Your task to perform on an android device: change keyboard looks Image 0: 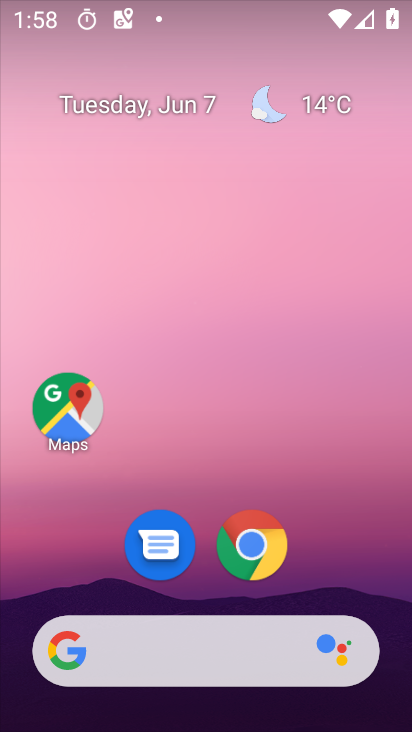
Step 0: drag from (337, 478) to (225, 6)
Your task to perform on an android device: change keyboard looks Image 1: 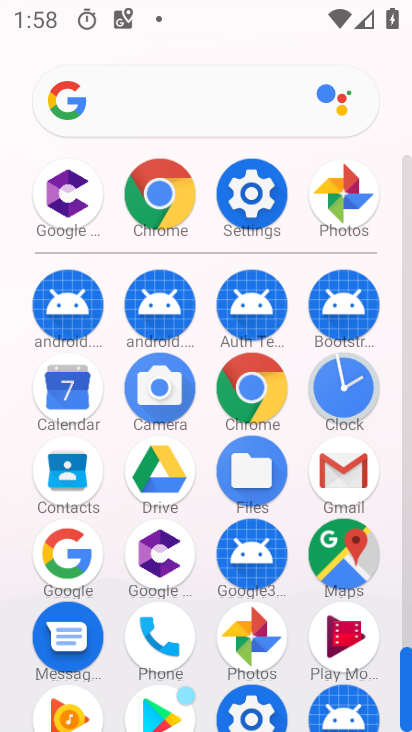
Step 1: click (249, 191)
Your task to perform on an android device: change keyboard looks Image 2: 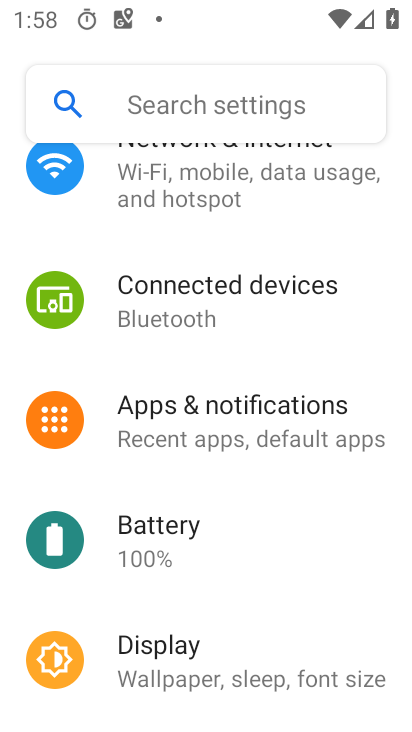
Step 2: drag from (269, 595) to (266, 64)
Your task to perform on an android device: change keyboard looks Image 3: 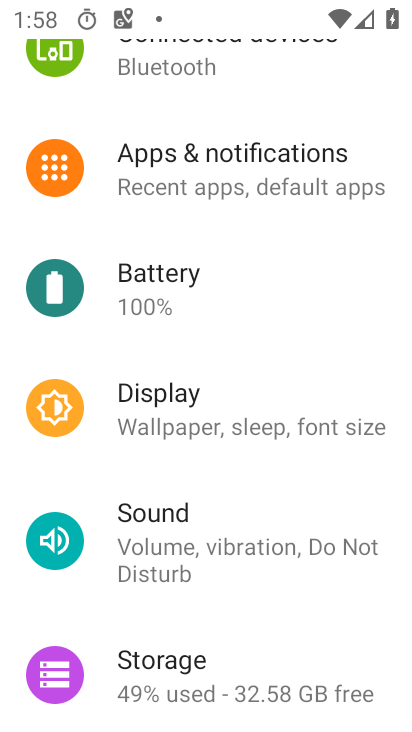
Step 3: drag from (245, 591) to (267, 125)
Your task to perform on an android device: change keyboard looks Image 4: 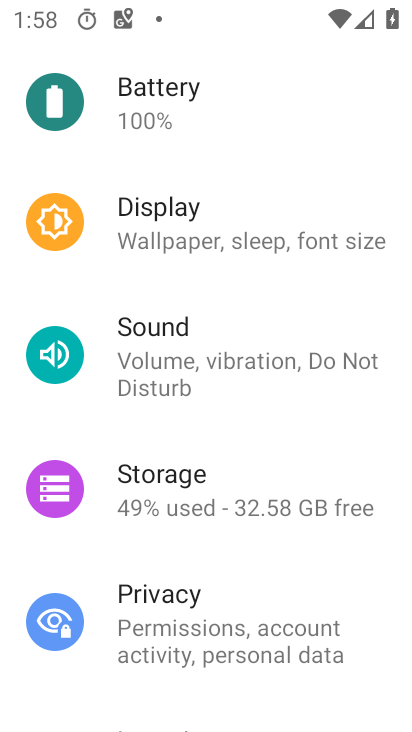
Step 4: drag from (238, 570) to (237, 135)
Your task to perform on an android device: change keyboard looks Image 5: 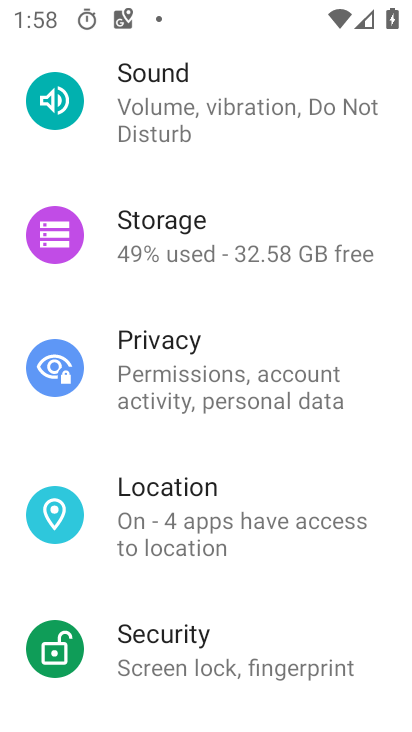
Step 5: drag from (215, 627) to (234, 202)
Your task to perform on an android device: change keyboard looks Image 6: 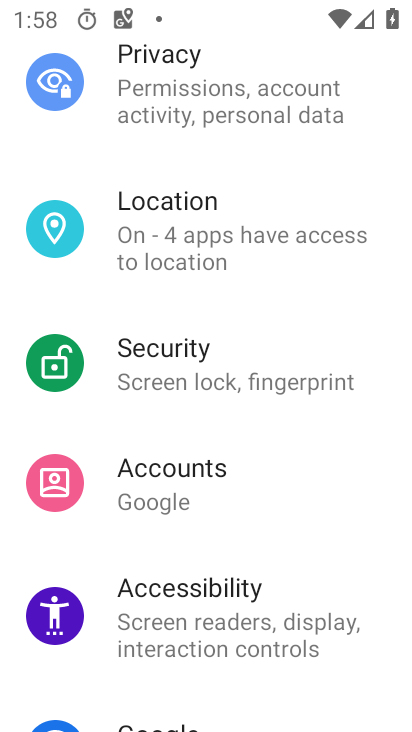
Step 6: drag from (257, 508) to (249, 191)
Your task to perform on an android device: change keyboard looks Image 7: 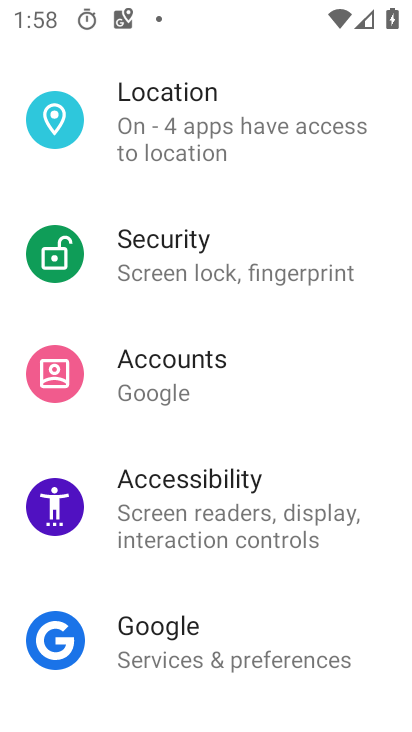
Step 7: drag from (231, 660) to (256, 127)
Your task to perform on an android device: change keyboard looks Image 8: 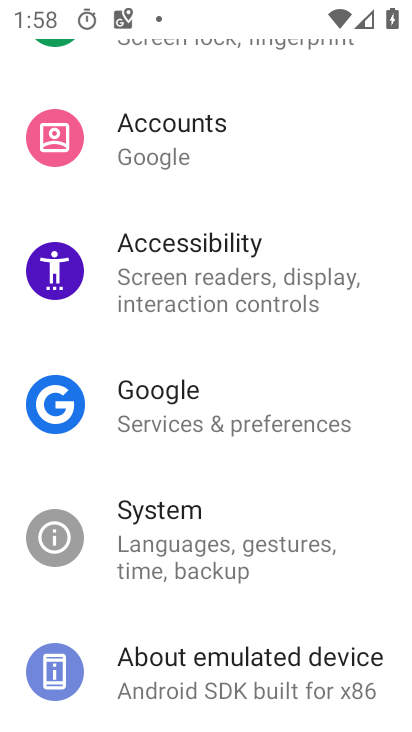
Step 8: click (219, 536)
Your task to perform on an android device: change keyboard looks Image 9: 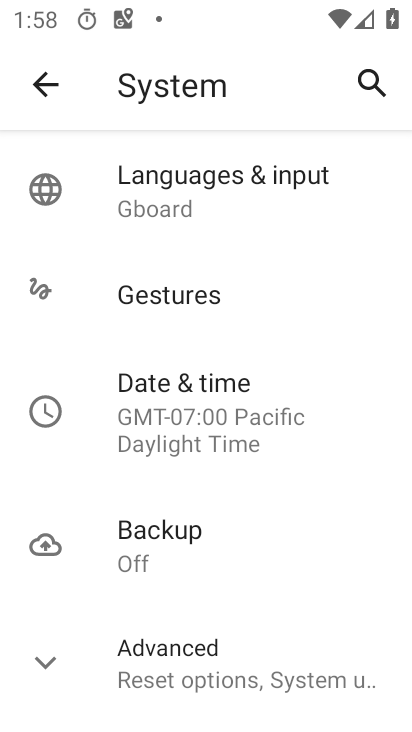
Step 9: click (232, 168)
Your task to perform on an android device: change keyboard looks Image 10: 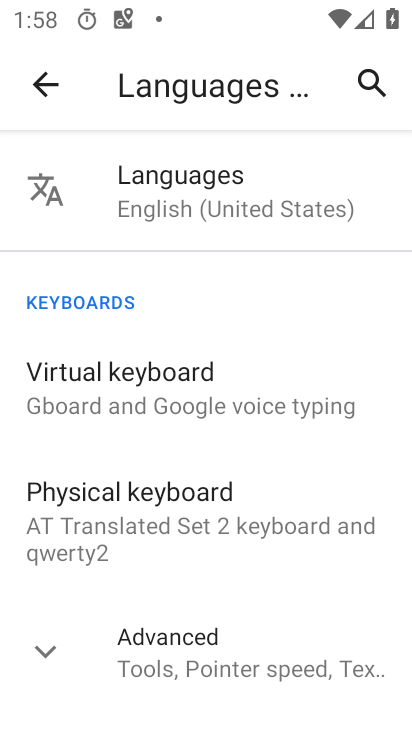
Step 10: click (154, 387)
Your task to perform on an android device: change keyboard looks Image 11: 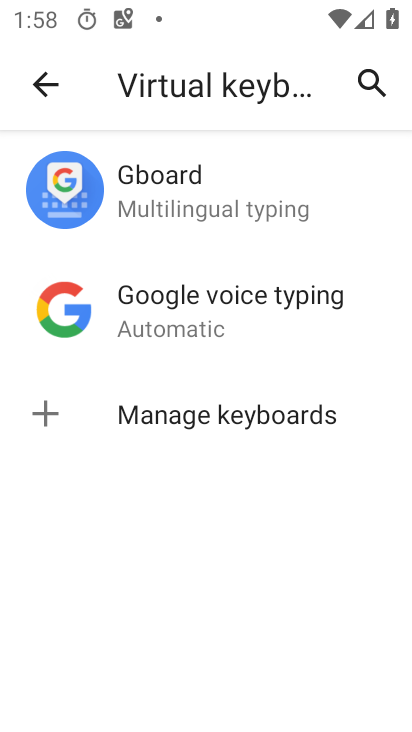
Step 11: click (145, 166)
Your task to perform on an android device: change keyboard looks Image 12: 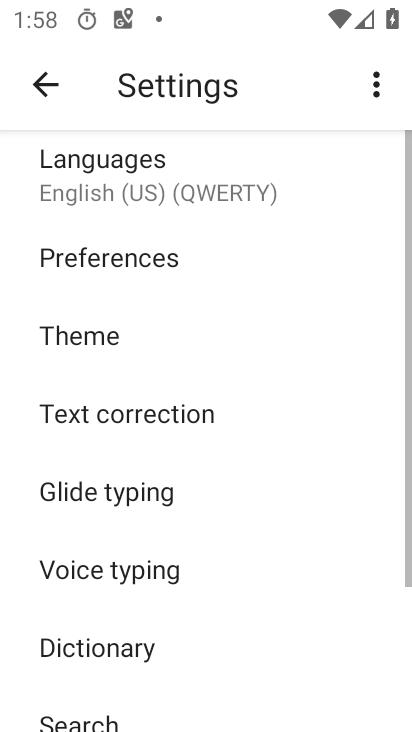
Step 12: click (158, 343)
Your task to perform on an android device: change keyboard looks Image 13: 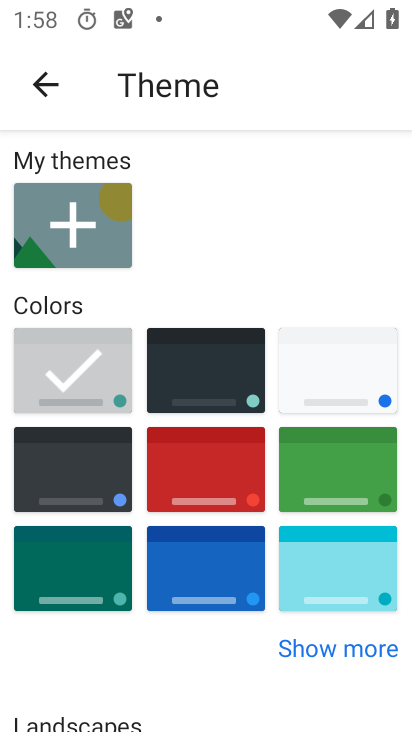
Step 13: click (205, 514)
Your task to perform on an android device: change keyboard looks Image 14: 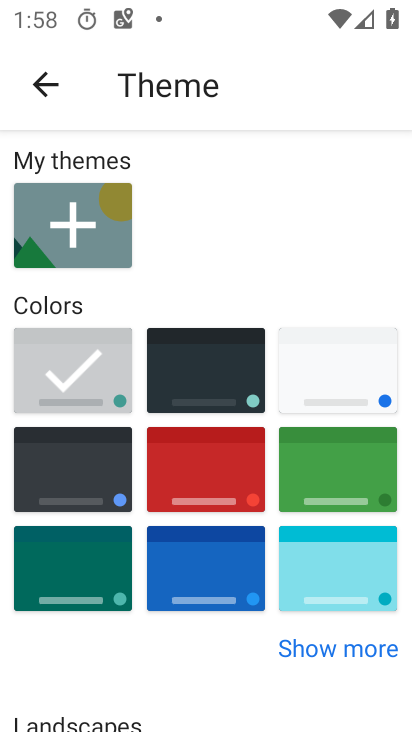
Step 14: click (210, 479)
Your task to perform on an android device: change keyboard looks Image 15: 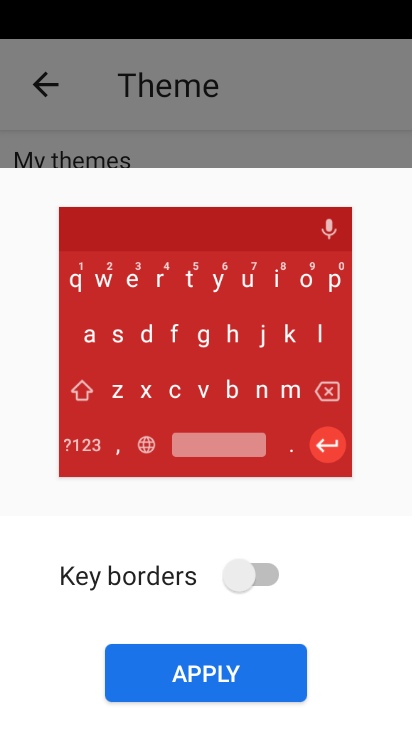
Step 15: click (212, 682)
Your task to perform on an android device: change keyboard looks Image 16: 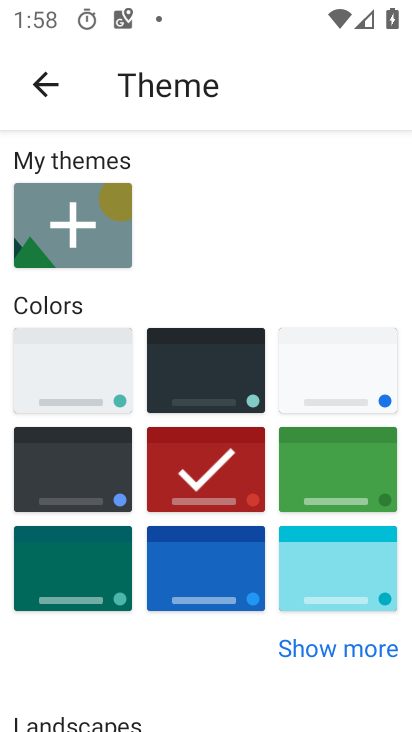
Step 16: task complete